Your task to perform on an android device: read, delete, or share a saved page in the chrome app Image 0: 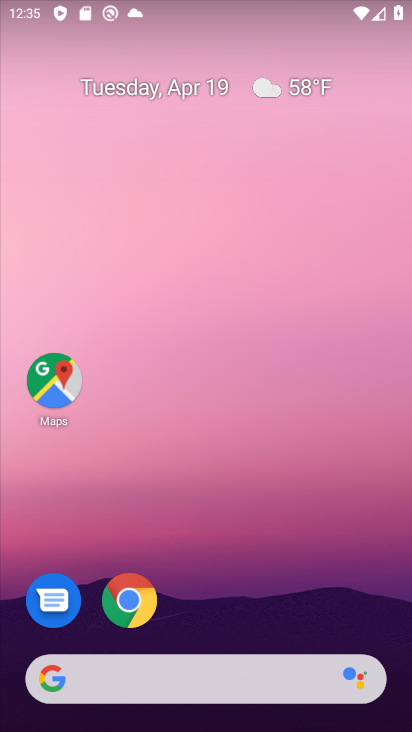
Step 0: drag from (323, 588) to (253, 284)
Your task to perform on an android device: read, delete, or share a saved page in the chrome app Image 1: 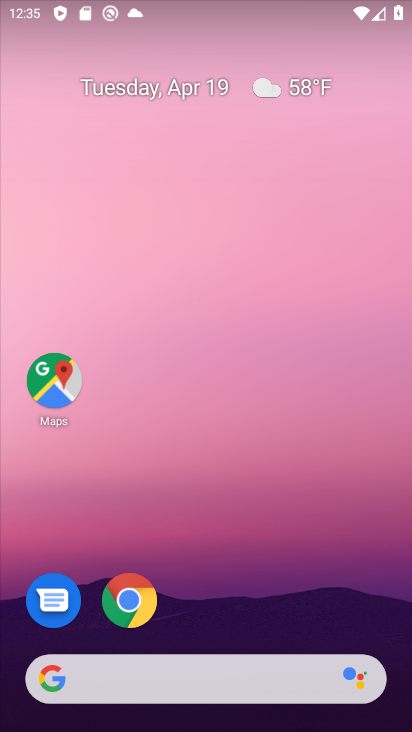
Step 1: drag from (371, 638) to (268, 289)
Your task to perform on an android device: read, delete, or share a saved page in the chrome app Image 2: 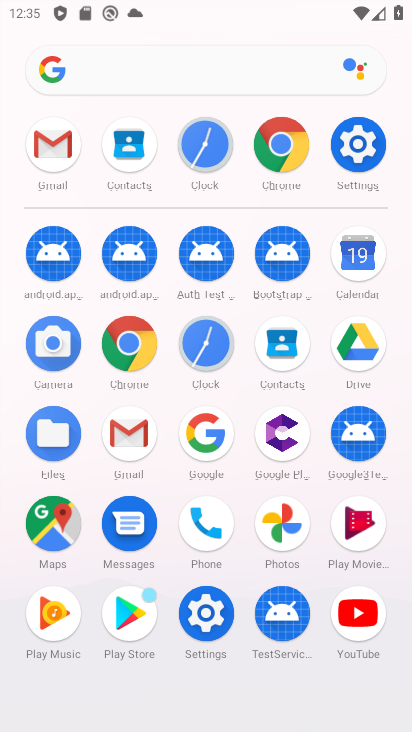
Step 2: click (266, 152)
Your task to perform on an android device: read, delete, or share a saved page in the chrome app Image 3: 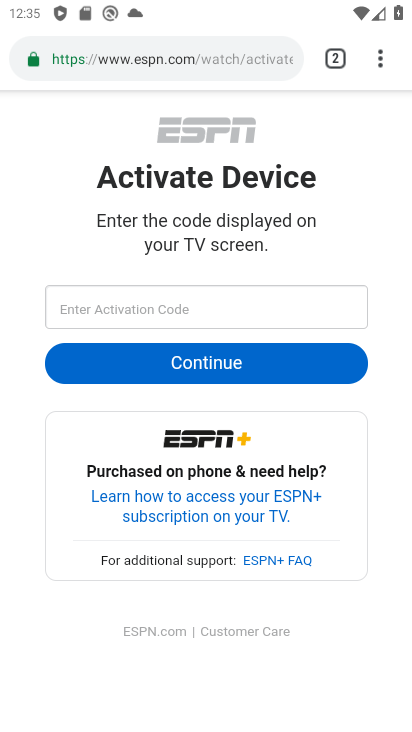
Step 3: drag from (380, 65) to (223, 438)
Your task to perform on an android device: read, delete, or share a saved page in the chrome app Image 4: 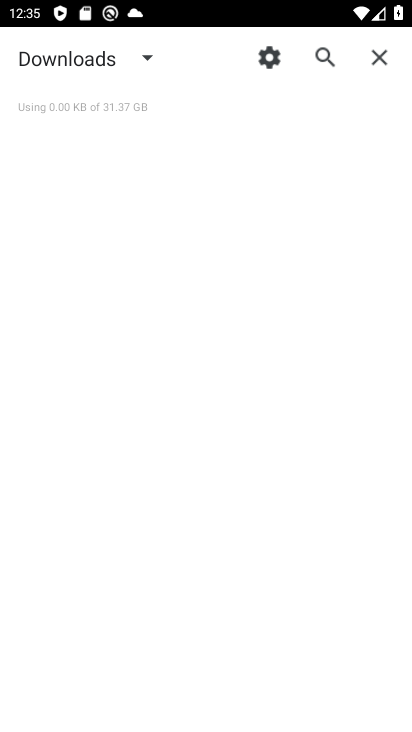
Step 4: click (96, 69)
Your task to perform on an android device: read, delete, or share a saved page in the chrome app Image 5: 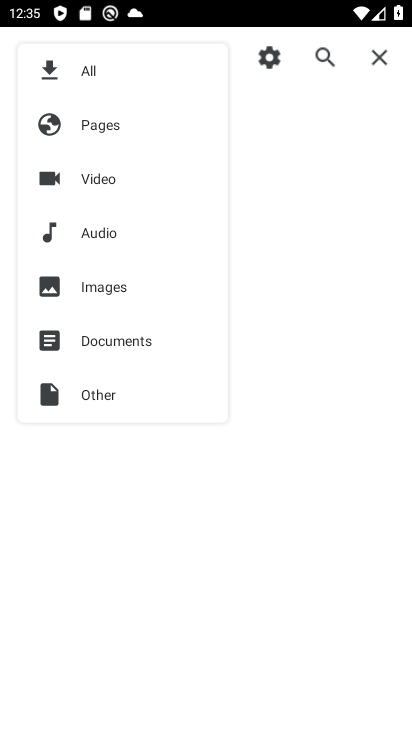
Step 5: click (91, 136)
Your task to perform on an android device: read, delete, or share a saved page in the chrome app Image 6: 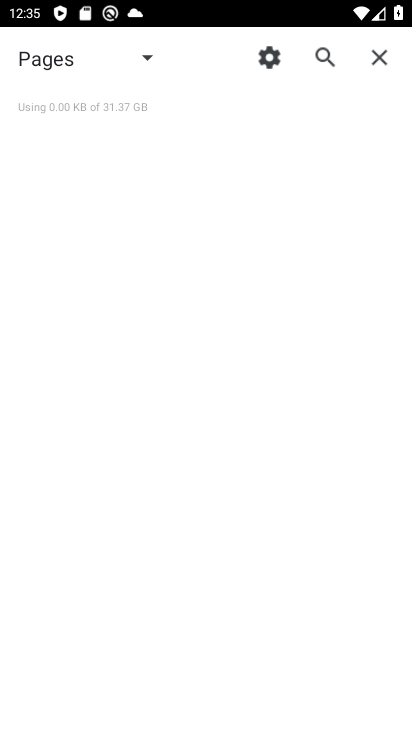
Step 6: task complete